Your task to perform on an android device: refresh tabs in the chrome app Image 0: 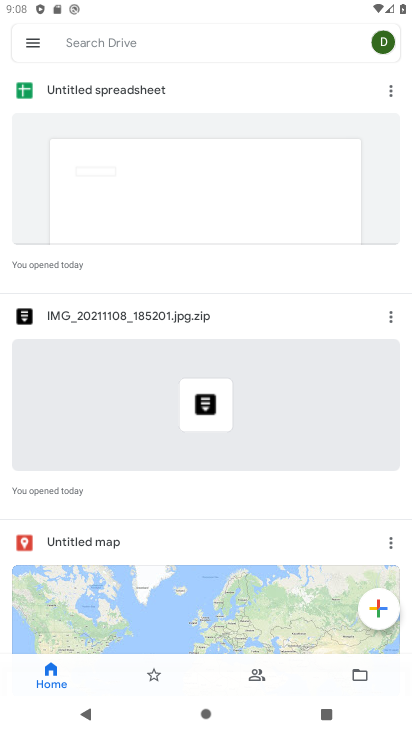
Step 0: press home button
Your task to perform on an android device: refresh tabs in the chrome app Image 1: 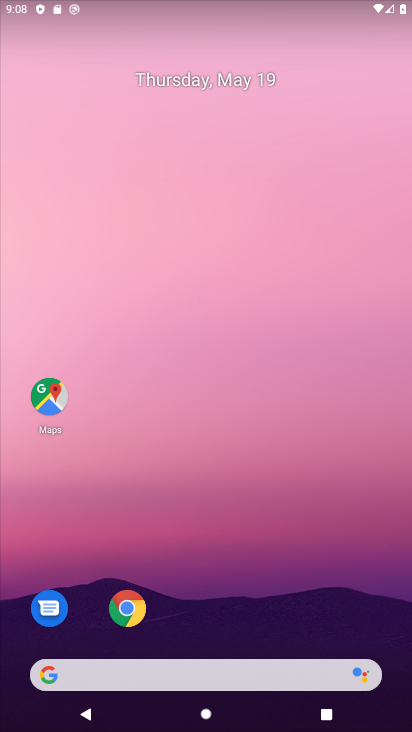
Step 1: click (131, 606)
Your task to perform on an android device: refresh tabs in the chrome app Image 2: 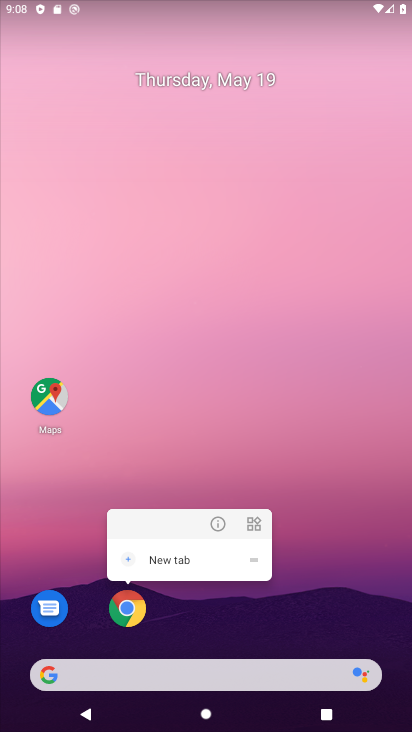
Step 2: click (131, 604)
Your task to perform on an android device: refresh tabs in the chrome app Image 3: 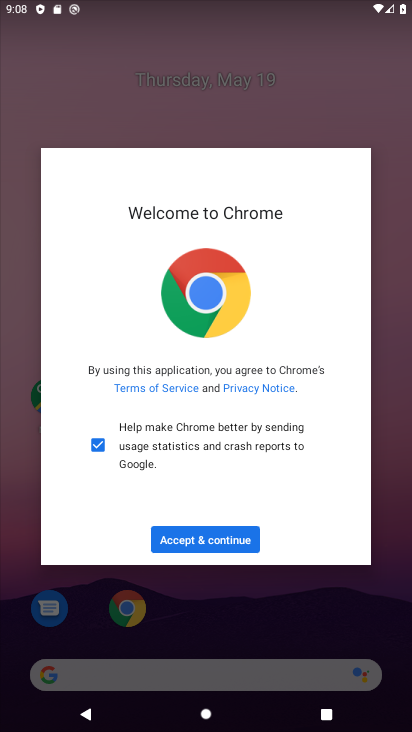
Step 3: click (216, 553)
Your task to perform on an android device: refresh tabs in the chrome app Image 4: 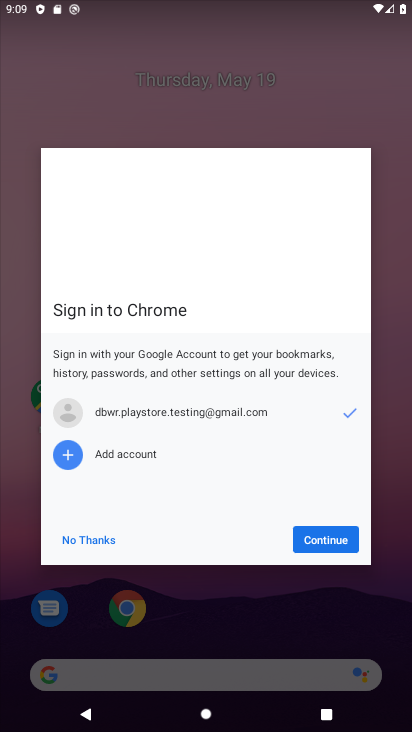
Step 4: click (319, 539)
Your task to perform on an android device: refresh tabs in the chrome app Image 5: 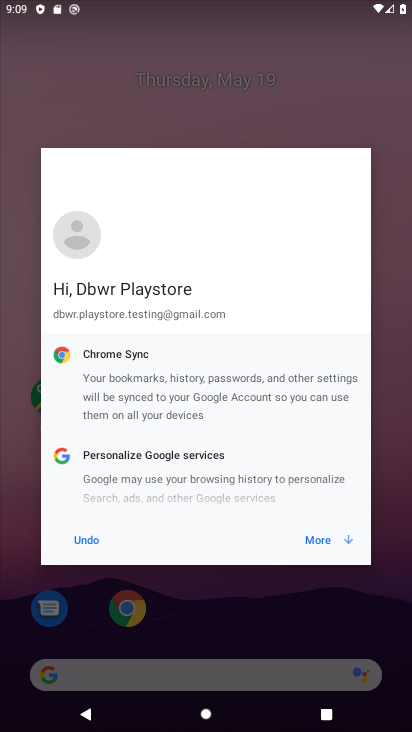
Step 5: click (319, 539)
Your task to perform on an android device: refresh tabs in the chrome app Image 6: 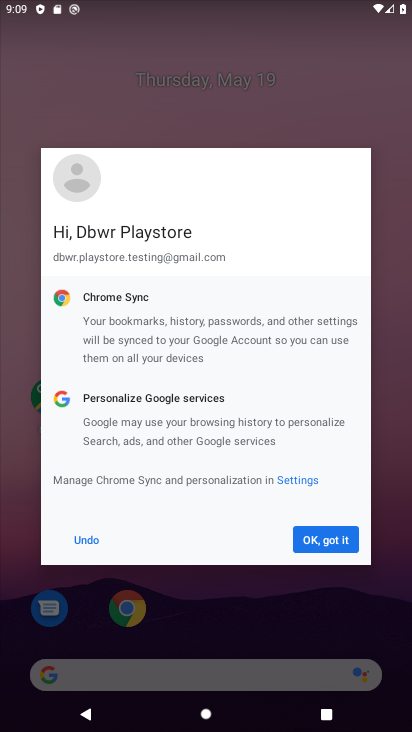
Step 6: click (319, 539)
Your task to perform on an android device: refresh tabs in the chrome app Image 7: 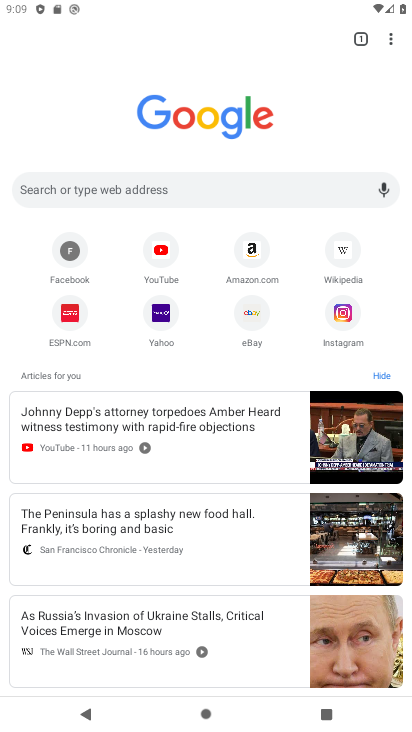
Step 7: click (392, 43)
Your task to perform on an android device: refresh tabs in the chrome app Image 8: 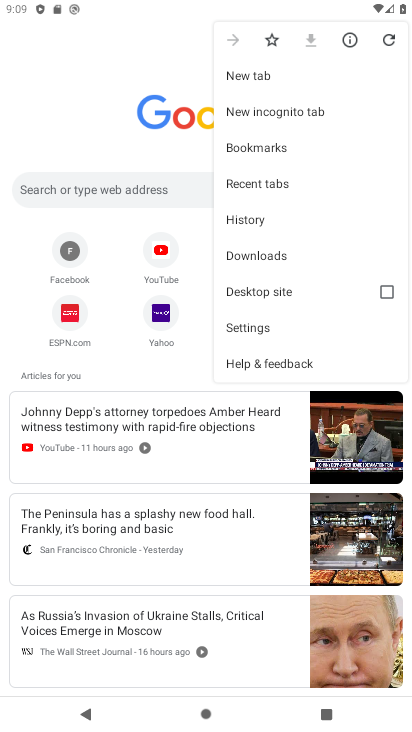
Step 8: click (389, 41)
Your task to perform on an android device: refresh tabs in the chrome app Image 9: 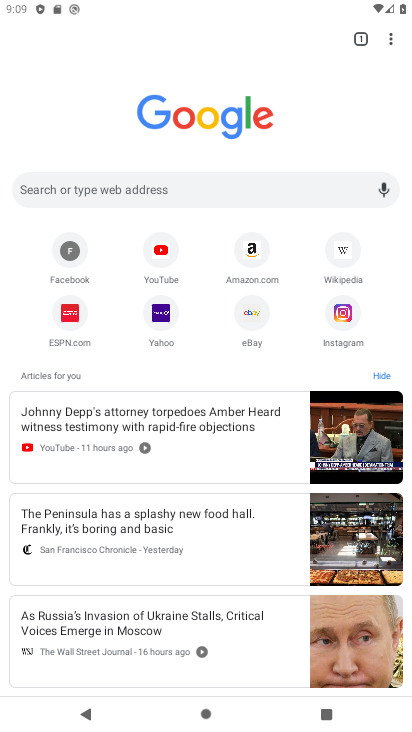
Step 9: task complete